Your task to perform on an android device: Add razer blade to the cart on newegg, then select checkout. Image 0: 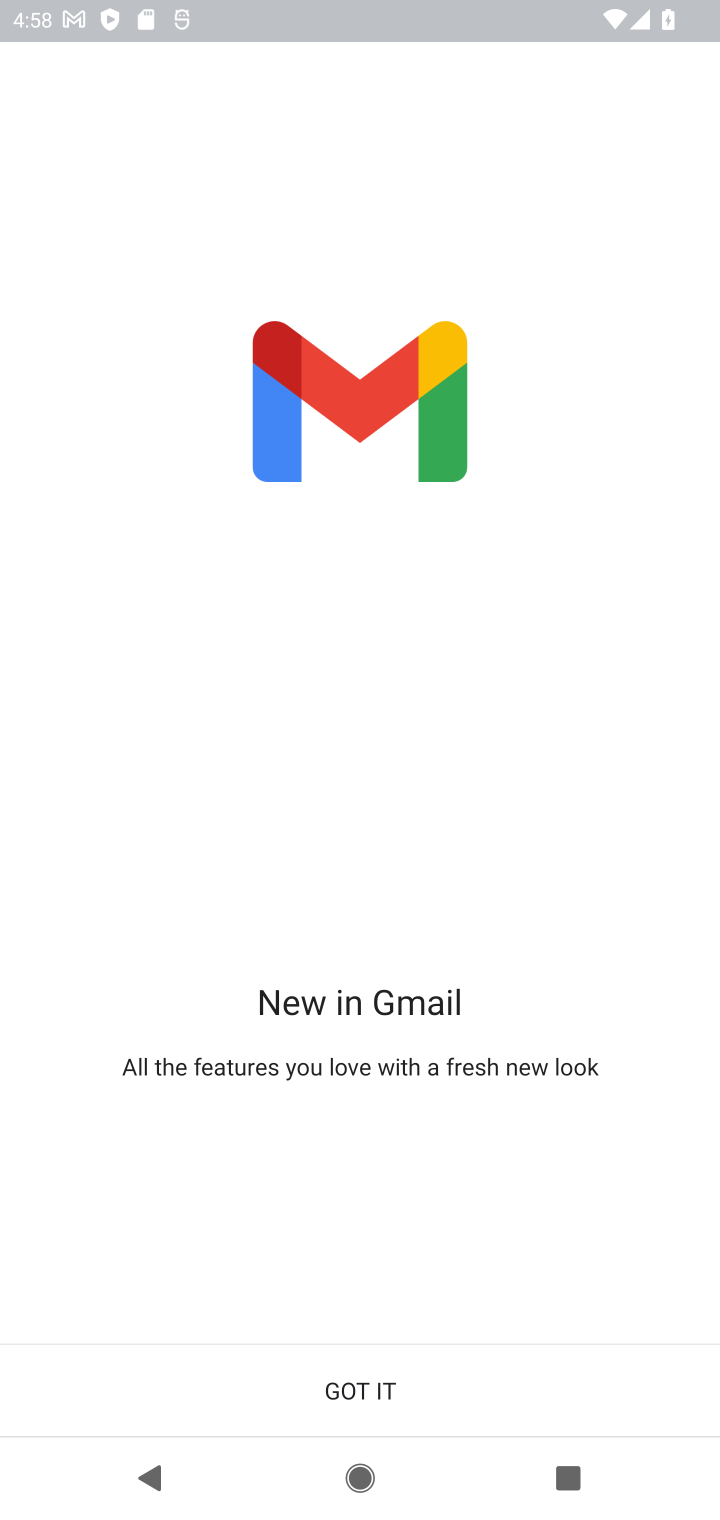
Step 0: press home button
Your task to perform on an android device: Add razer blade to the cart on newegg, then select checkout. Image 1: 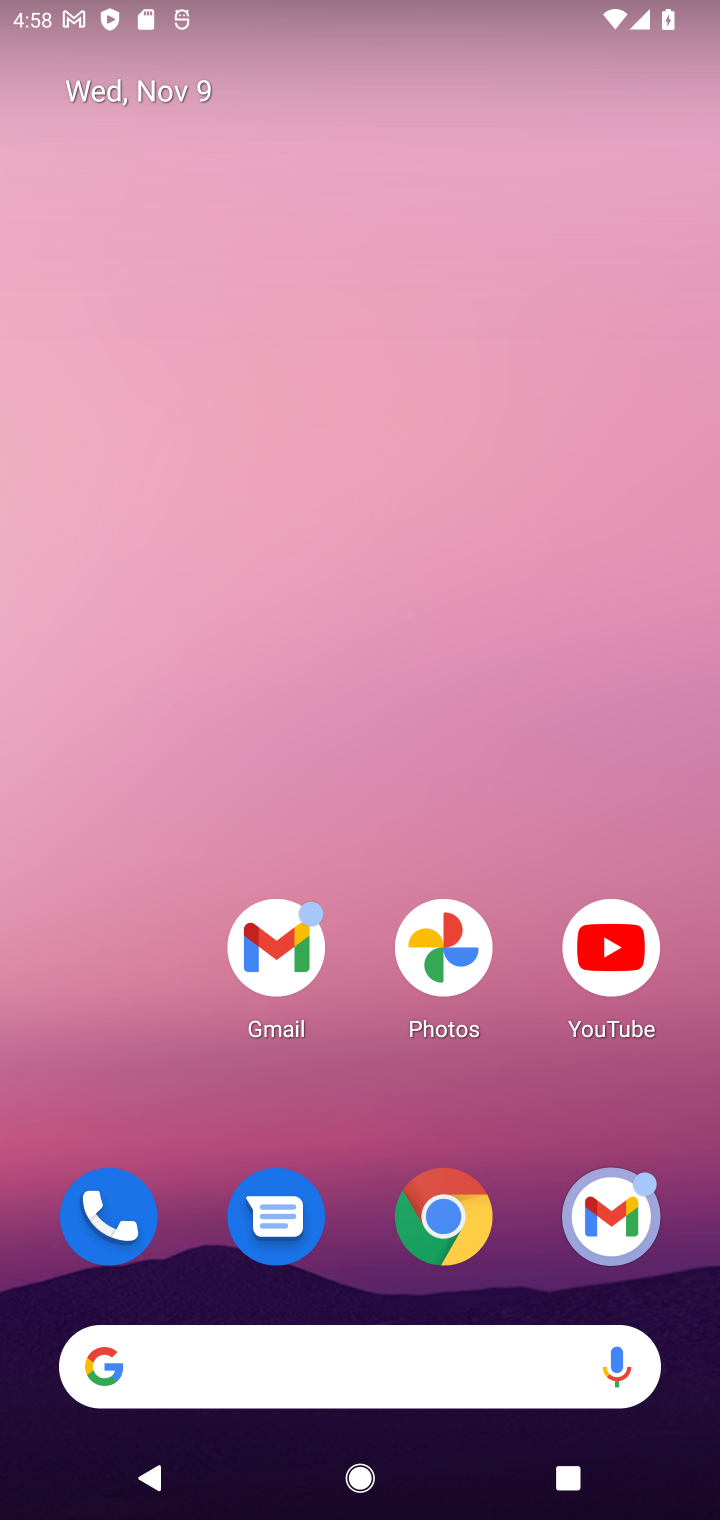
Step 1: drag from (370, 1093) to (368, 102)
Your task to perform on an android device: Add razer blade to the cart on newegg, then select checkout. Image 2: 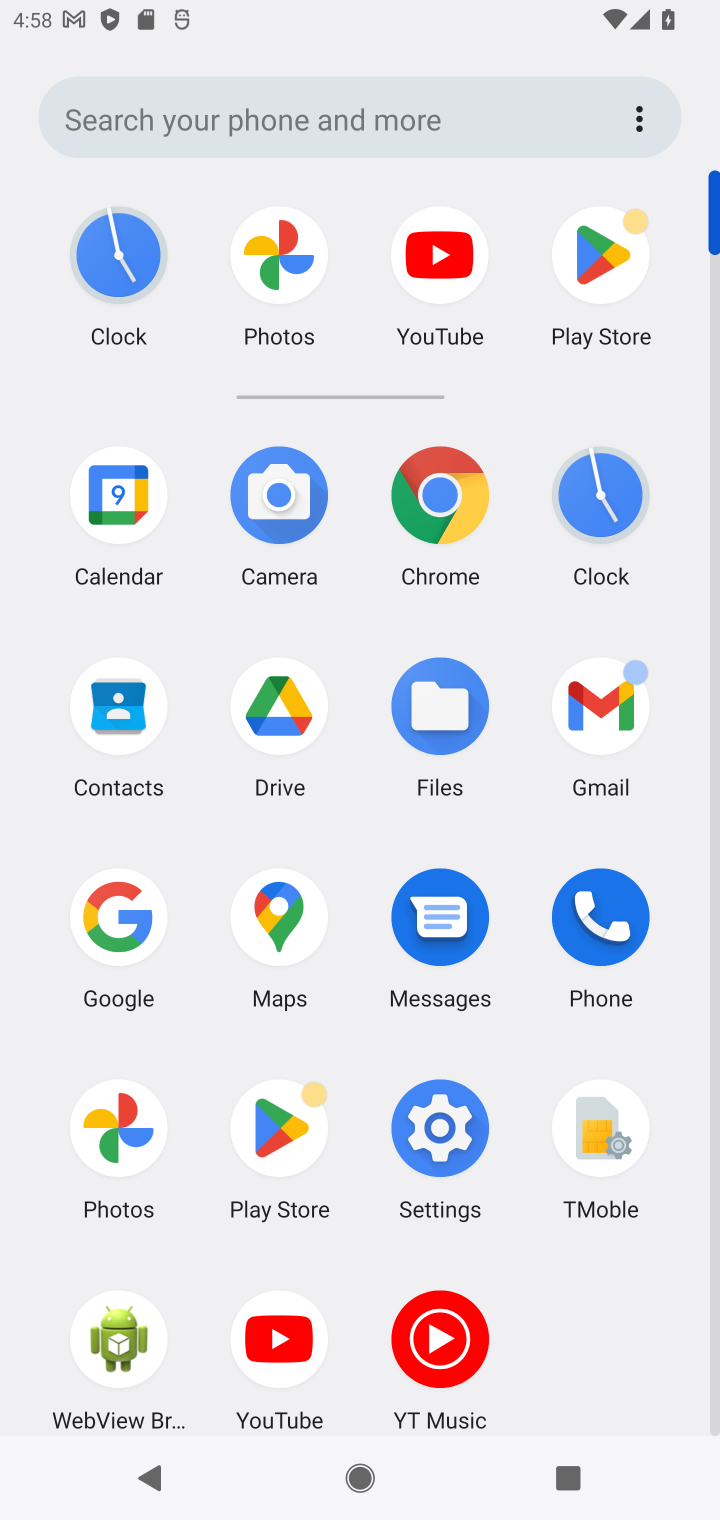
Step 2: click (442, 495)
Your task to perform on an android device: Add razer blade to the cart on newegg, then select checkout. Image 3: 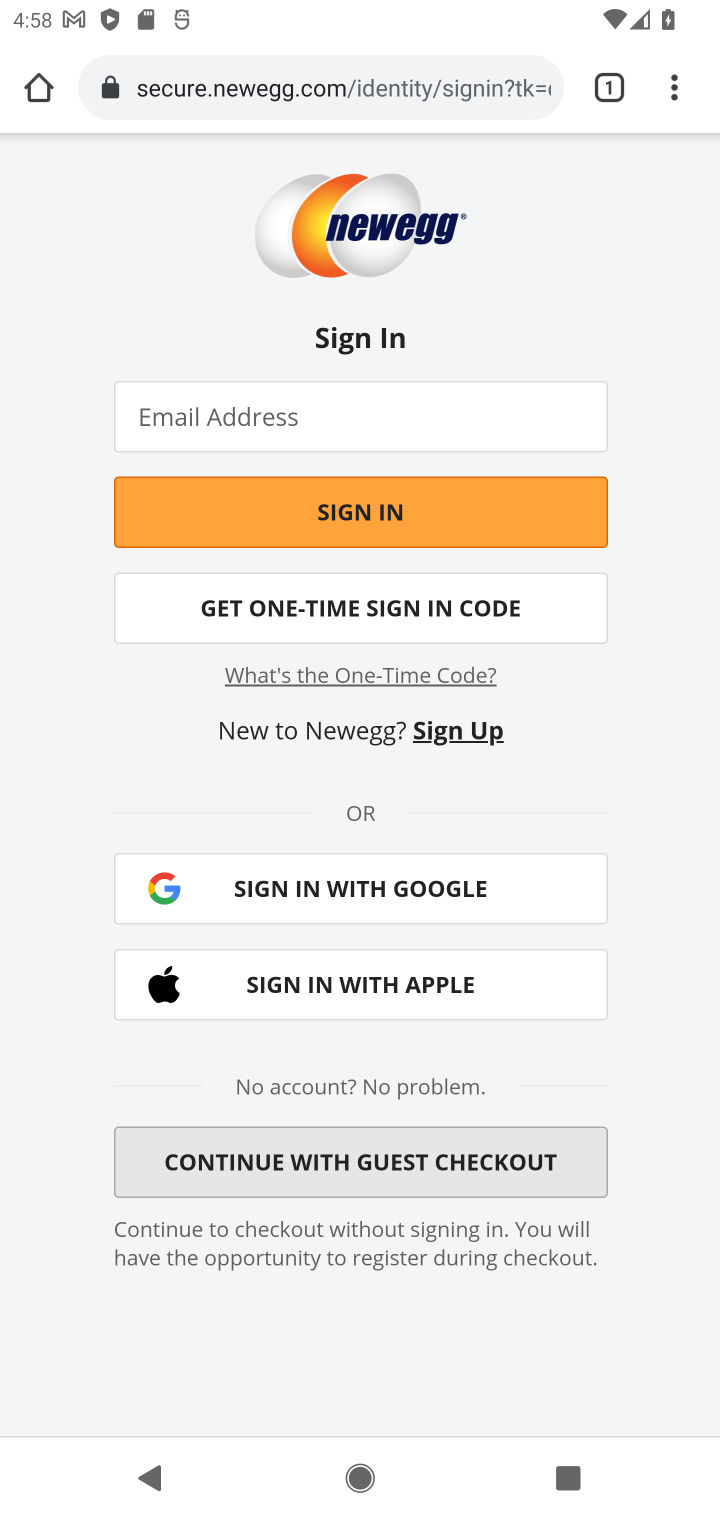
Step 3: click (355, 88)
Your task to perform on an android device: Add razer blade to the cart on newegg, then select checkout. Image 4: 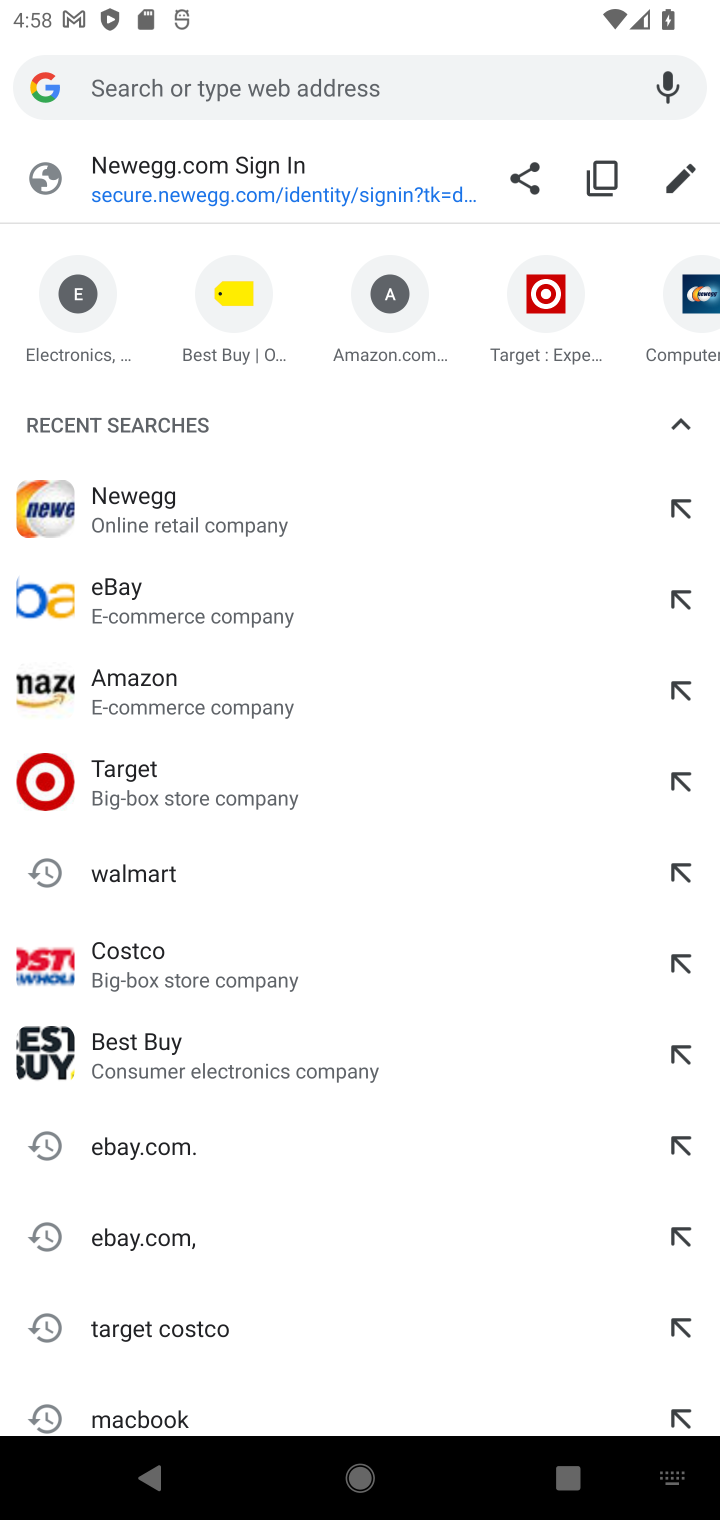
Step 4: type "newegg.com"
Your task to perform on an android device: Add razer blade to the cart on newegg, then select checkout. Image 5: 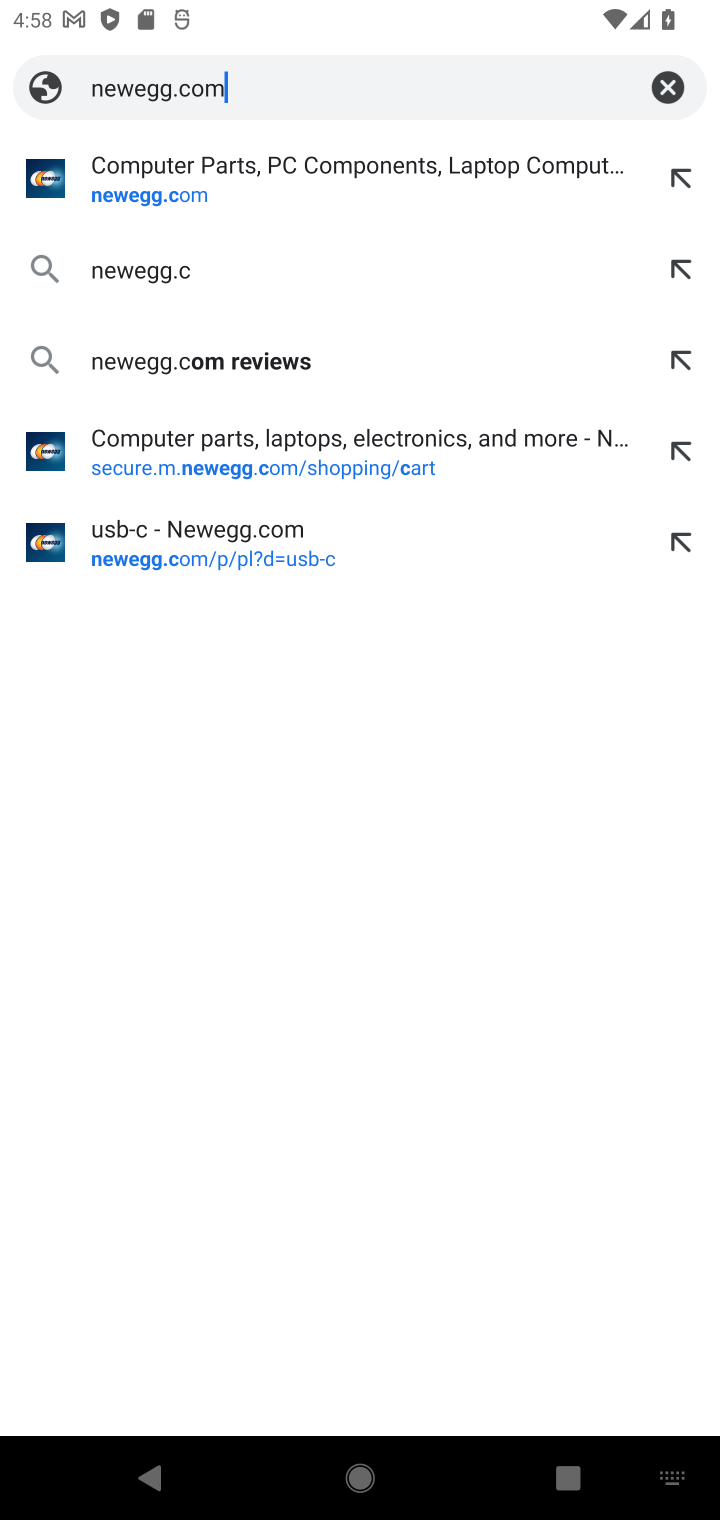
Step 5: press enter
Your task to perform on an android device: Add razer blade to the cart on newegg, then select checkout. Image 6: 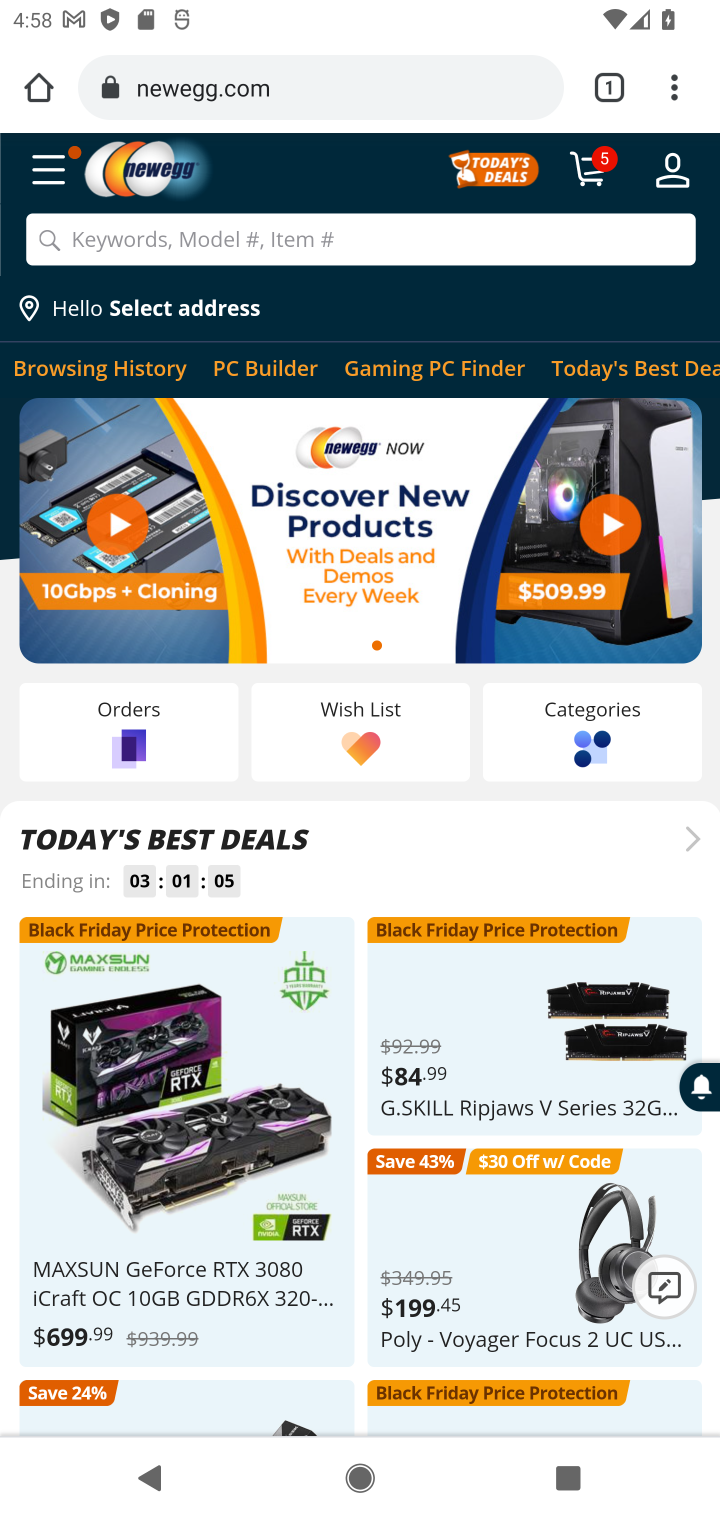
Step 6: click (343, 235)
Your task to perform on an android device: Add razer blade to the cart on newegg, then select checkout. Image 7: 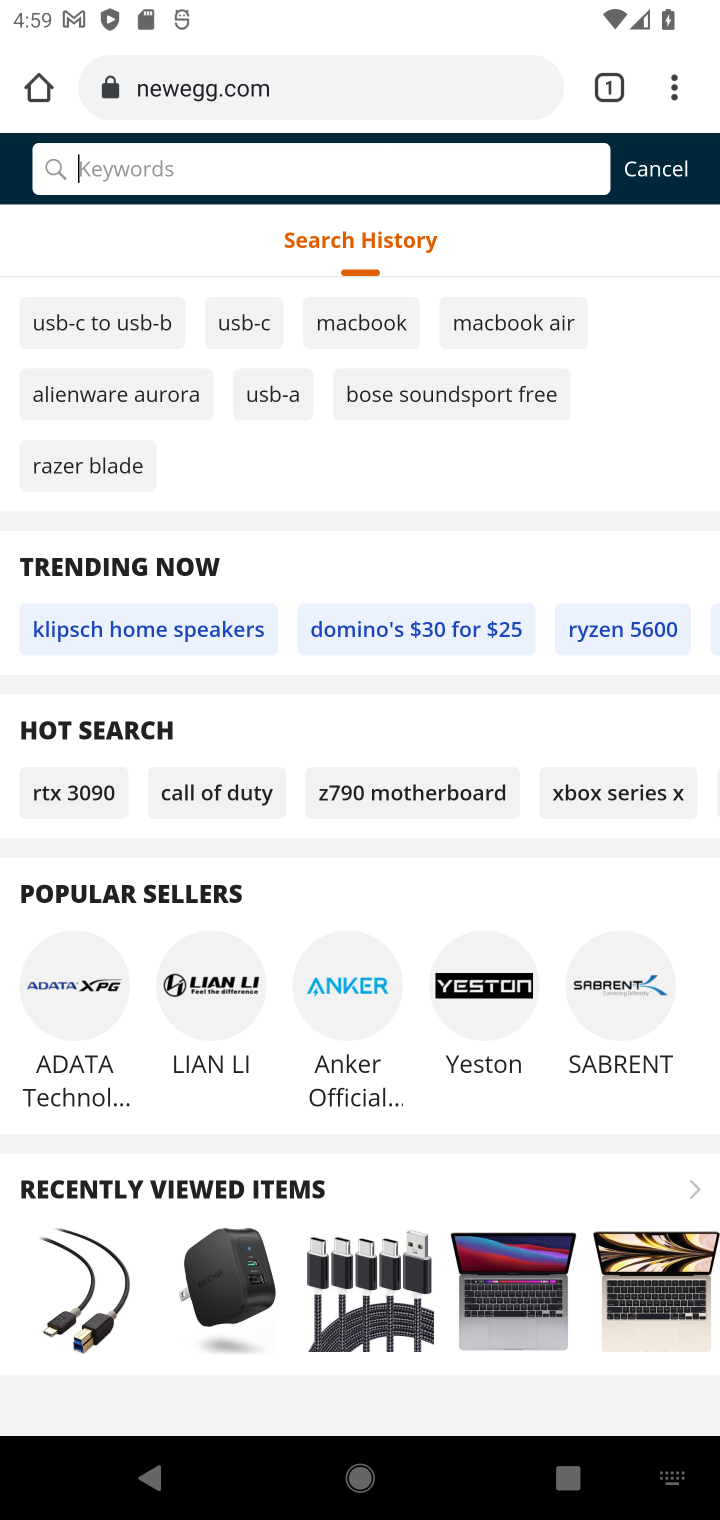
Step 7: type "razer blade"
Your task to perform on an android device: Add razer blade to the cart on newegg, then select checkout. Image 8: 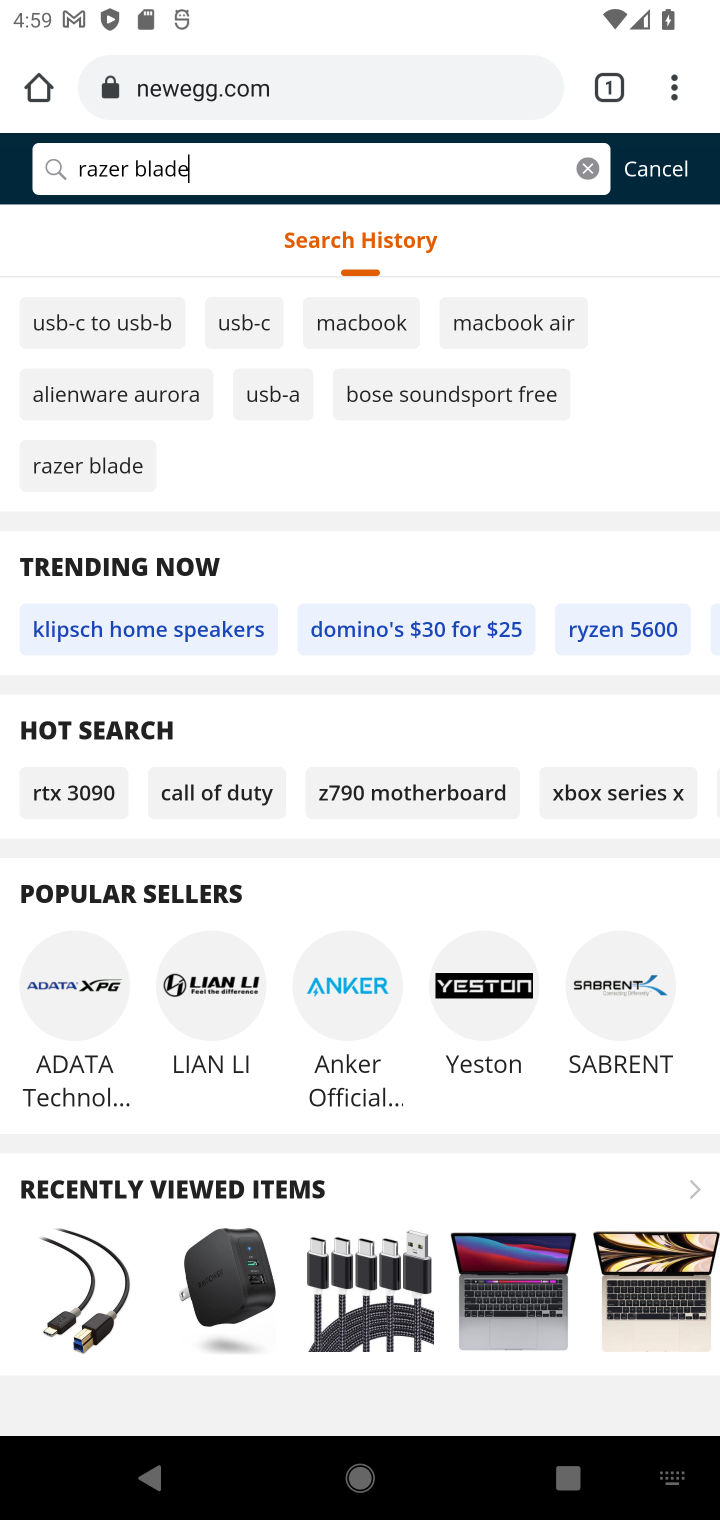
Step 8: press enter
Your task to perform on an android device: Add razer blade to the cart on newegg, then select checkout. Image 9: 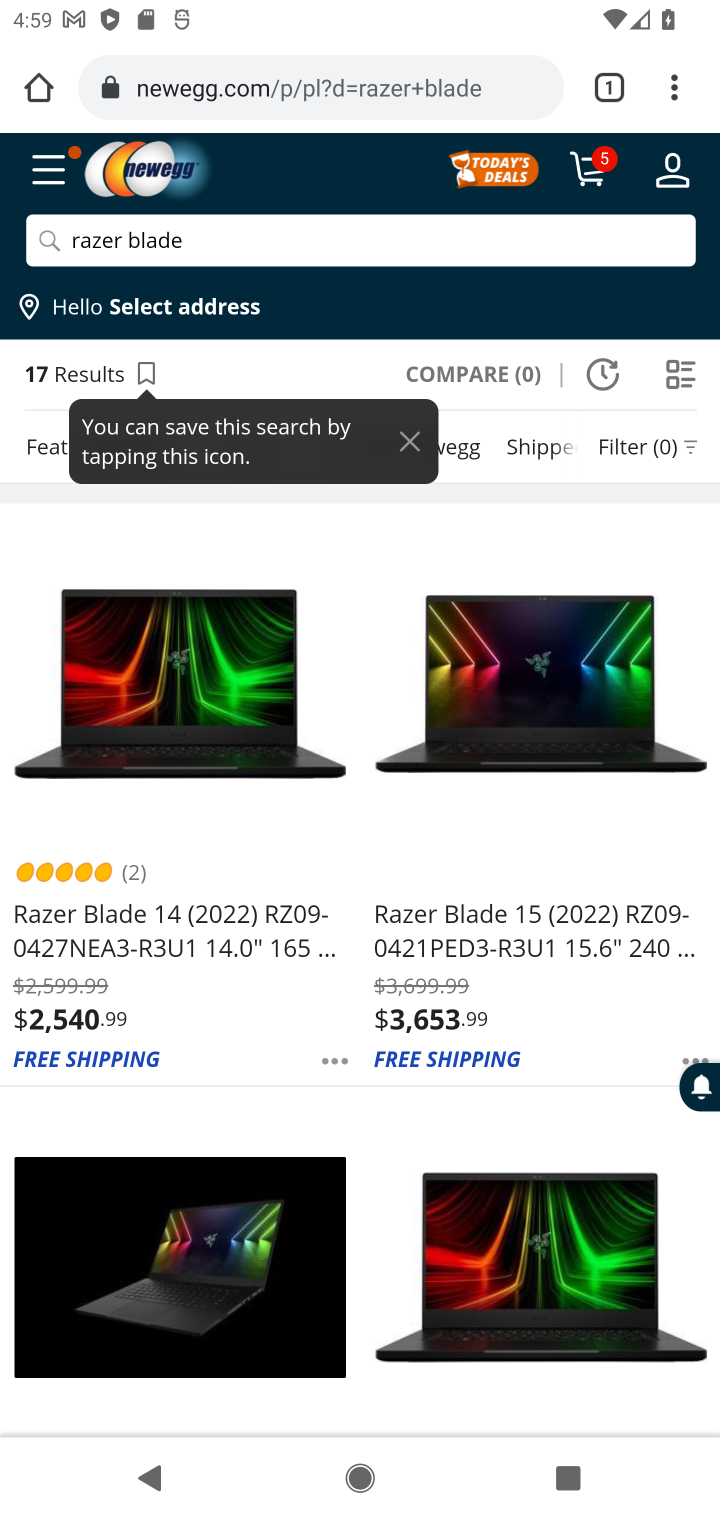
Step 9: click (201, 926)
Your task to perform on an android device: Add razer blade to the cart on newegg, then select checkout. Image 10: 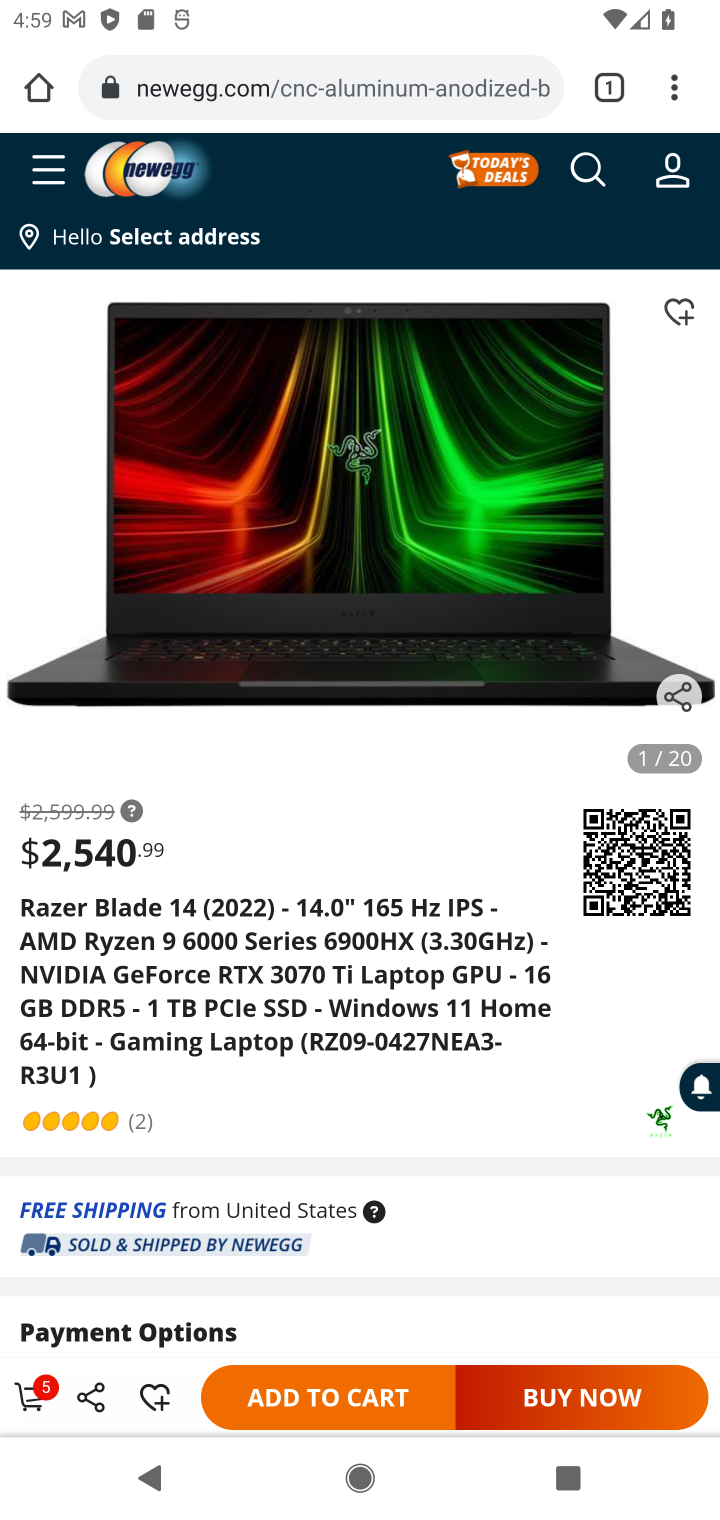
Step 10: click (291, 1399)
Your task to perform on an android device: Add razer blade to the cart on newegg, then select checkout. Image 11: 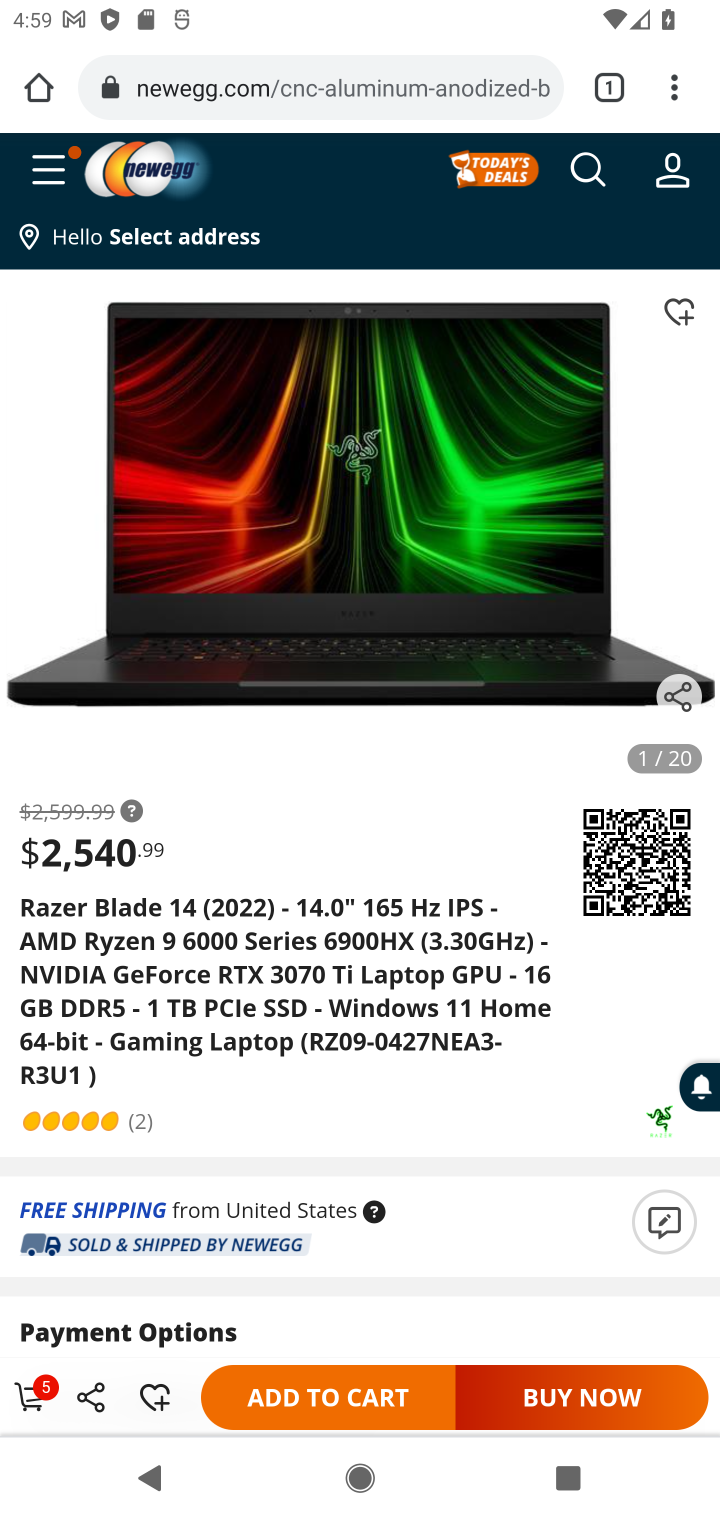
Step 11: click (348, 1395)
Your task to perform on an android device: Add razer blade to the cart on newegg, then select checkout. Image 12: 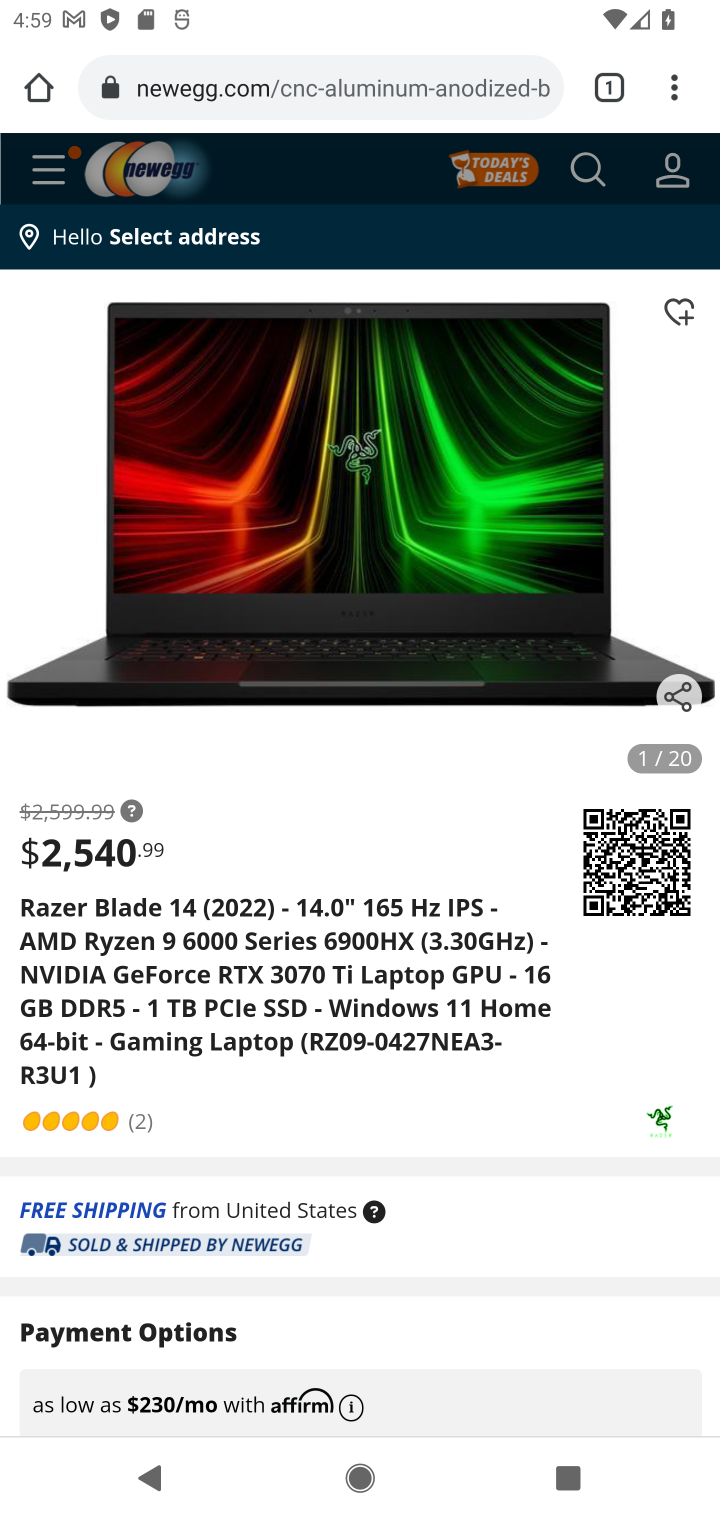
Step 12: click (39, 1377)
Your task to perform on an android device: Add razer blade to the cart on newegg, then select checkout. Image 13: 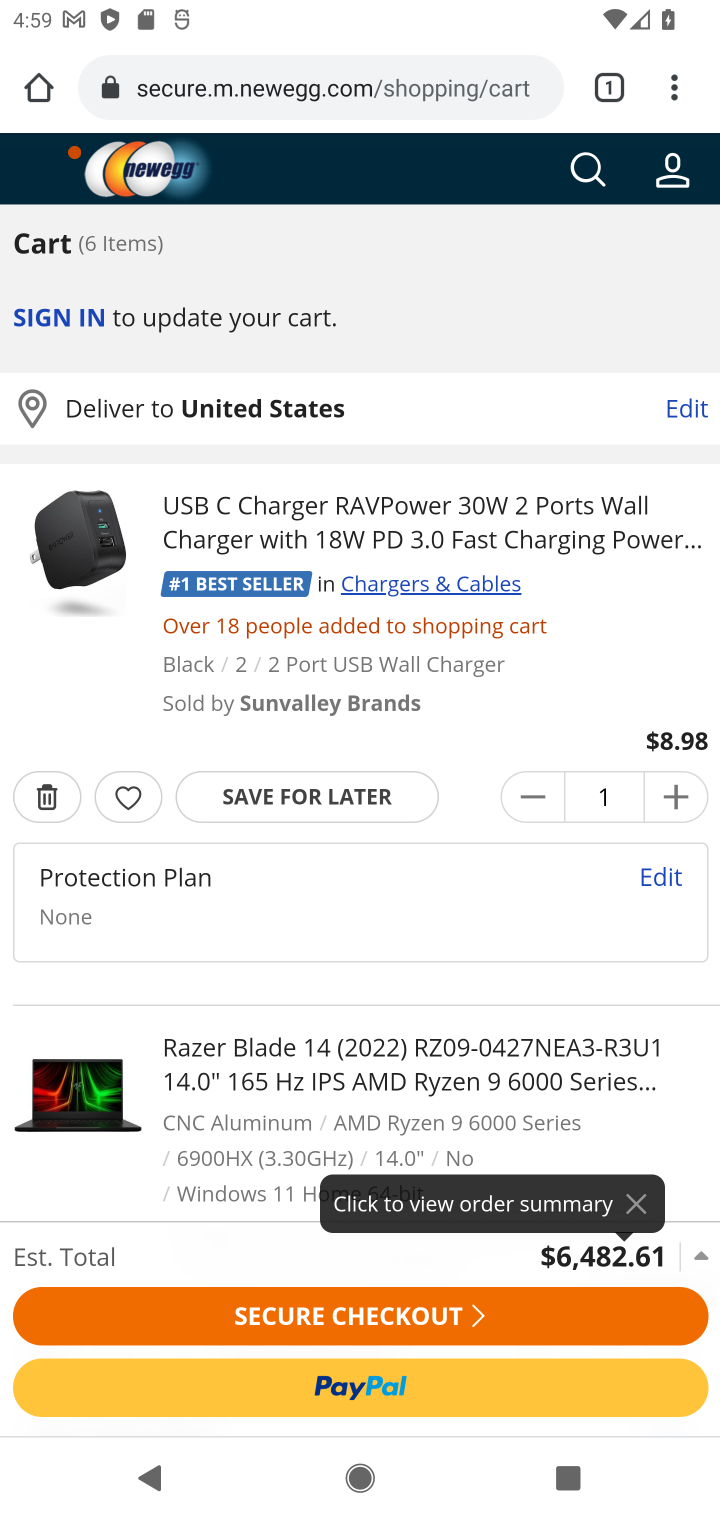
Step 13: click (428, 1308)
Your task to perform on an android device: Add razer blade to the cart on newegg, then select checkout. Image 14: 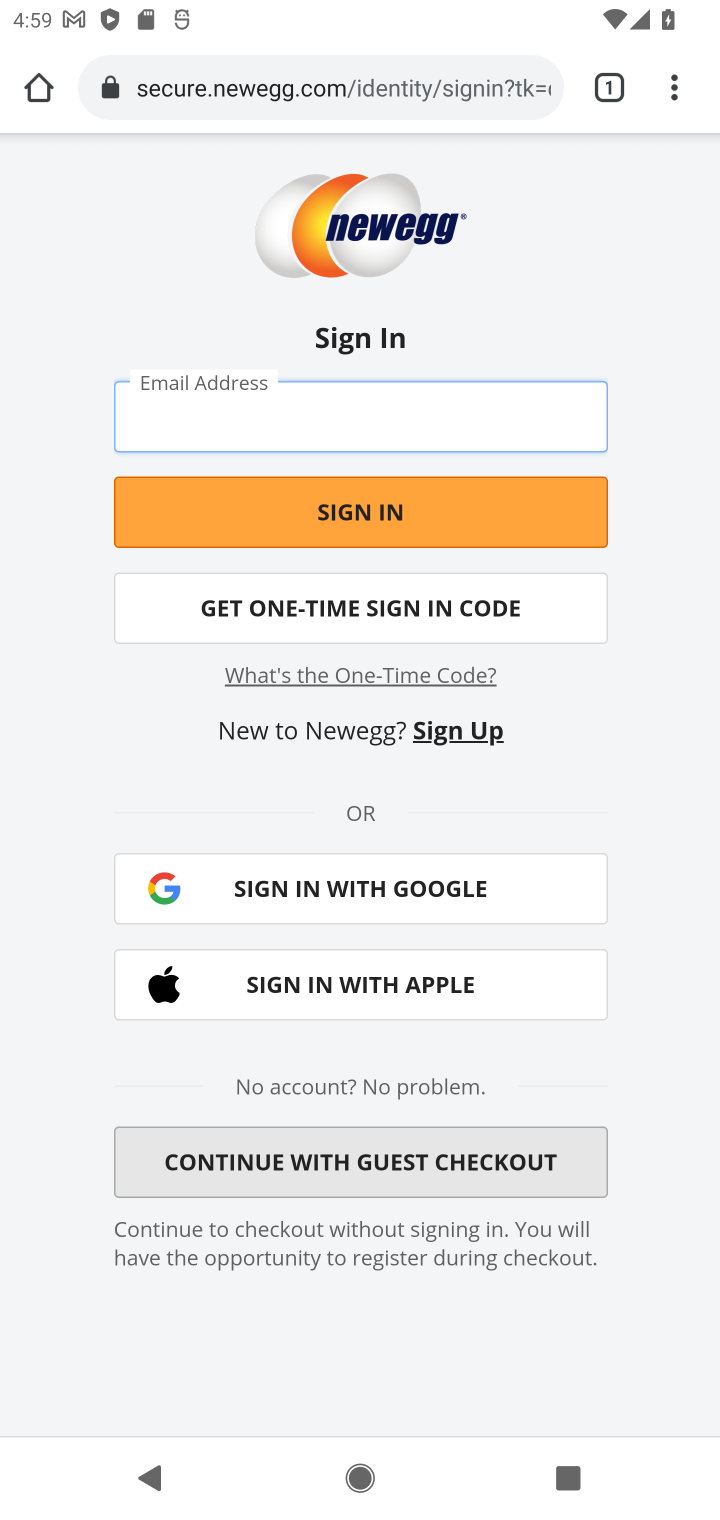
Step 14: task complete